Your task to perform on an android device: open sync settings in chrome Image 0: 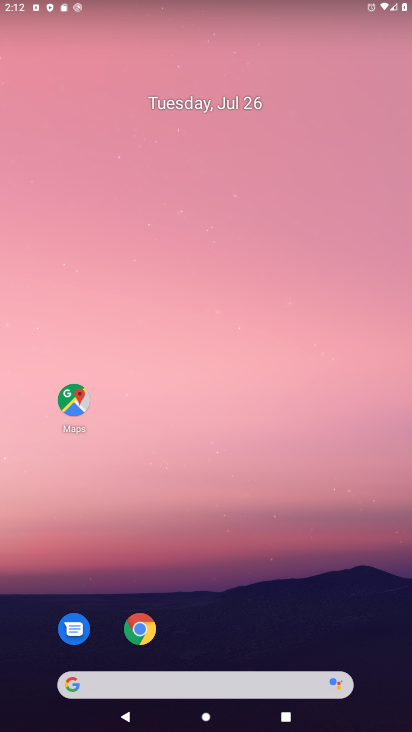
Step 0: click (140, 628)
Your task to perform on an android device: open sync settings in chrome Image 1: 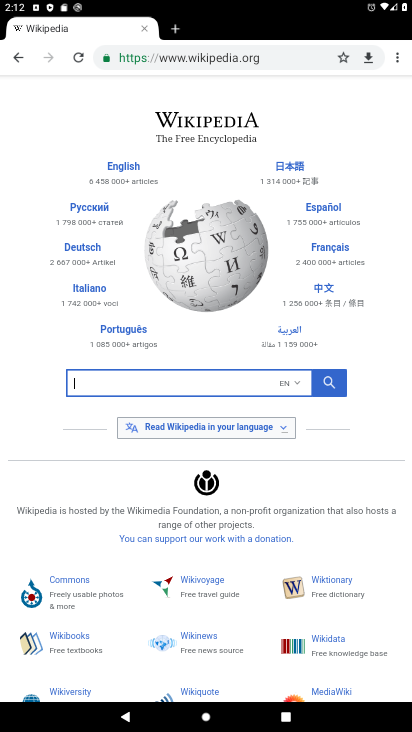
Step 1: click (397, 60)
Your task to perform on an android device: open sync settings in chrome Image 2: 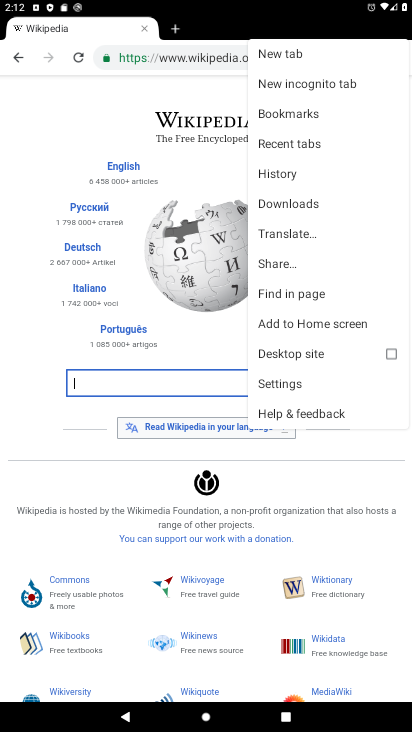
Step 2: click (282, 383)
Your task to perform on an android device: open sync settings in chrome Image 3: 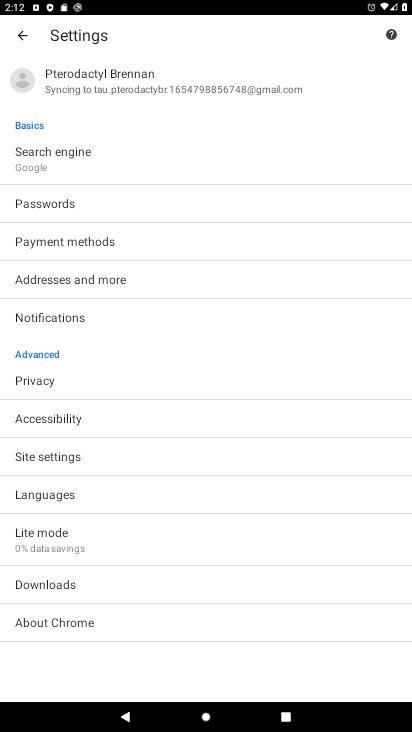
Step 3: click (86, 83)
Your task to perform on an android device: open sync settings in chrome Image 4: 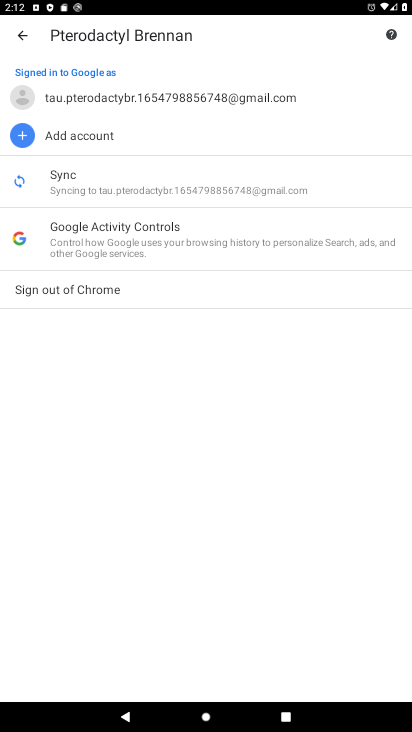
Step 4: click (68, 174)
Your task to perform on an android device: open sync settings in chrome Image 5: 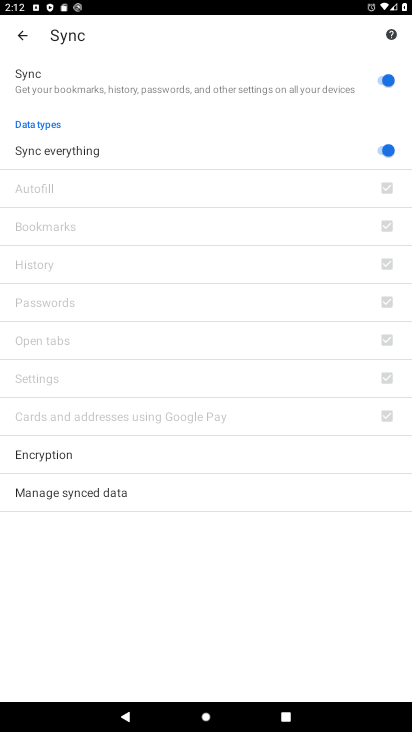
Step 5: task complete